Your task to perform on an android device: Open Reddit.com Image 0: 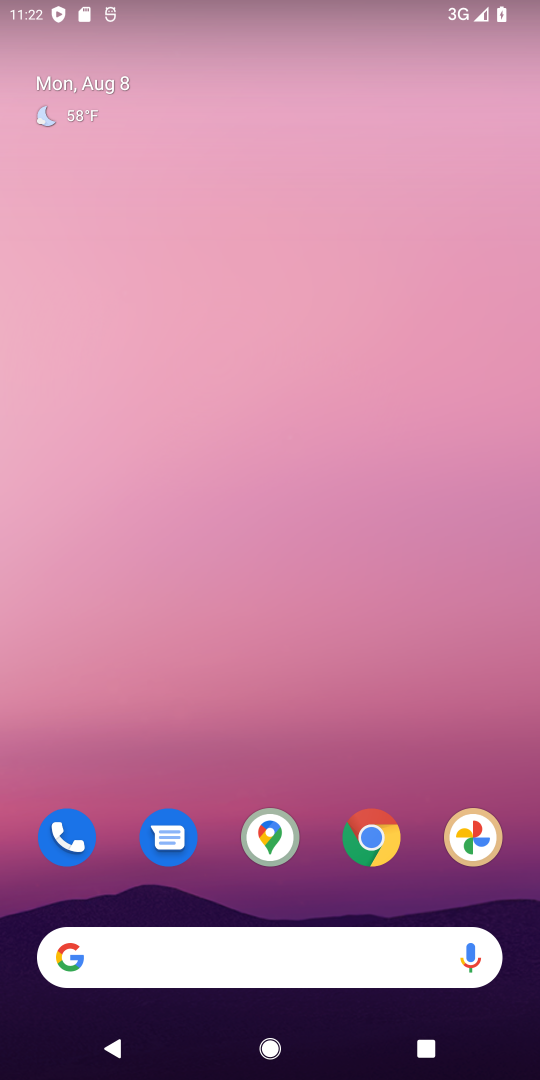
Step 0: click (367, 835)
Your task to perform on an android device: Open Reddit.com Image 1: 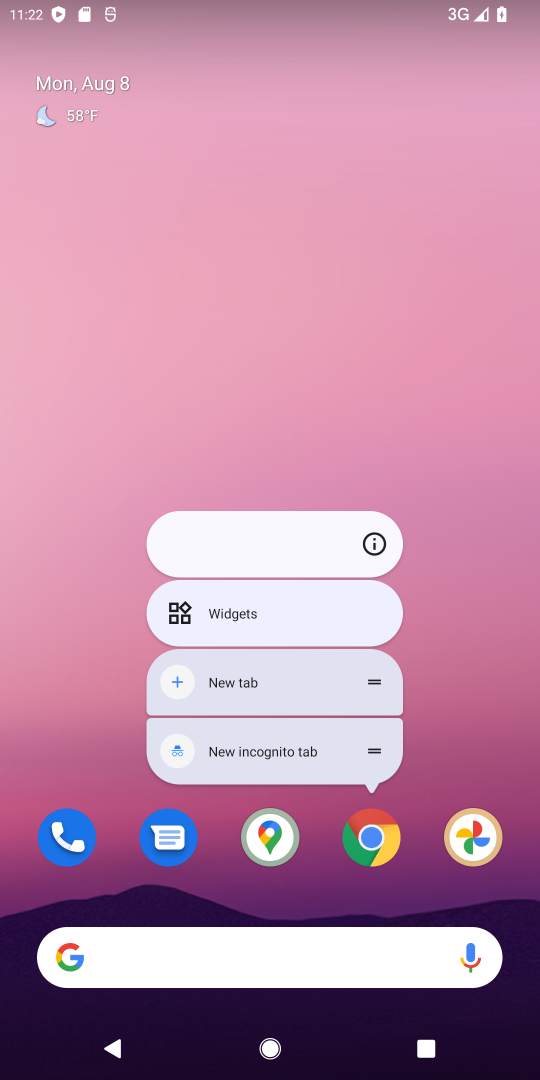
Step 1: click (383, 824)
Your task to perform on an android device: Open Reddit.com Image 2: 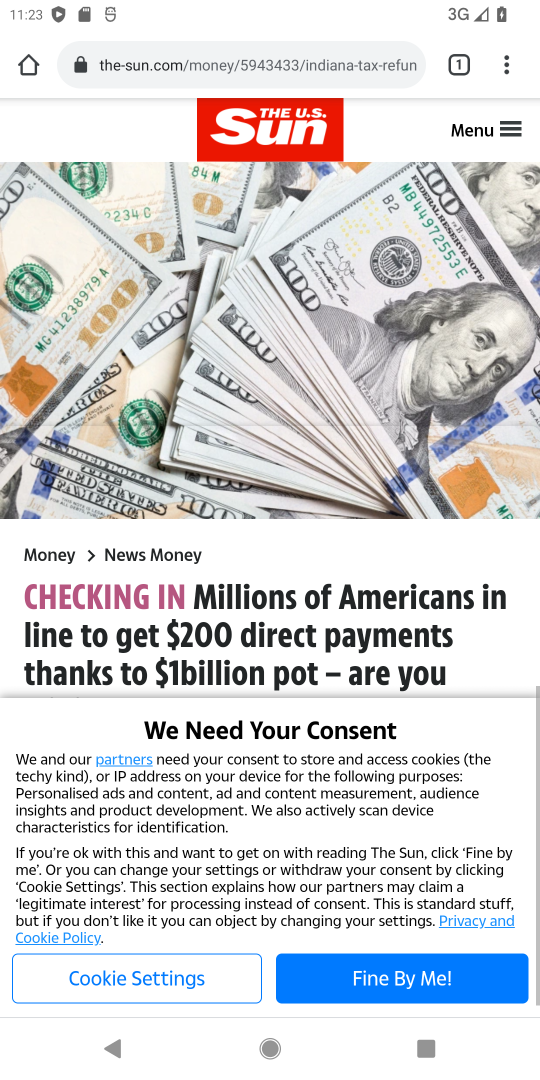
Step 2: click (412, 67)
Your task to perform on an android device: Open Reddit.com Image 3: 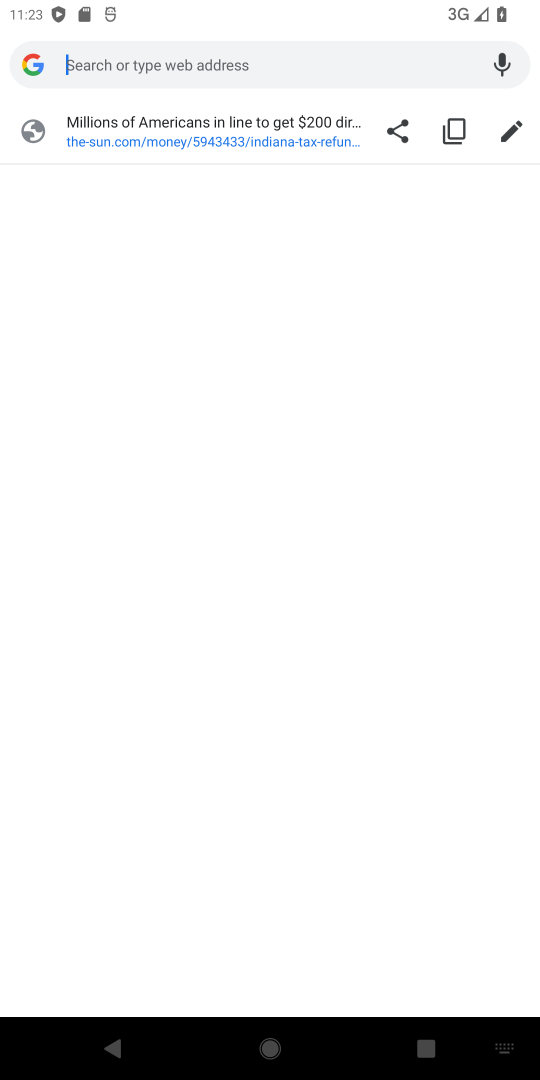
Step 3: type "Reddit.com"
Your task to perform on an android device: Open Reddit.com Image 4: 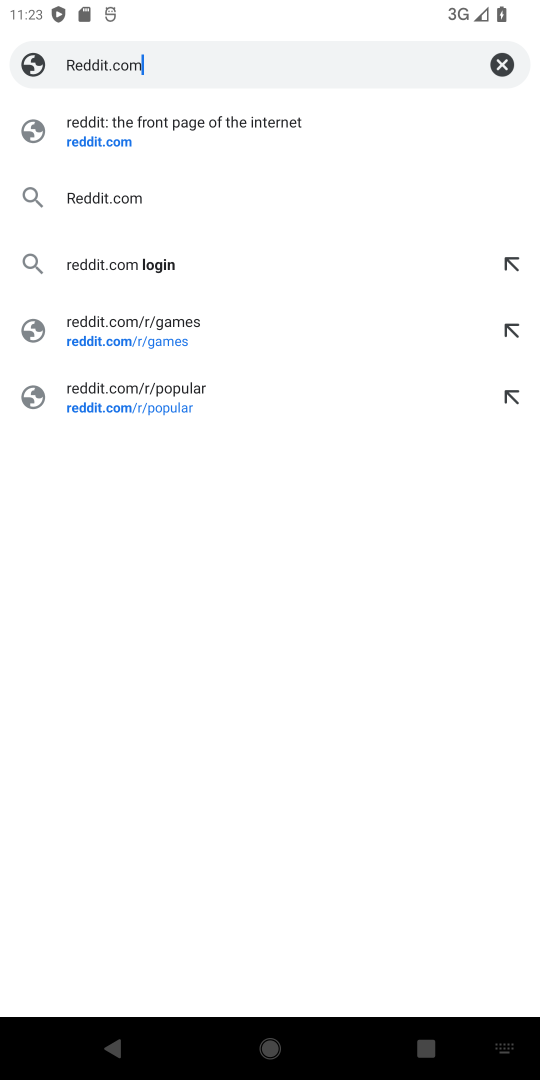
Step 4: click (128, 198)
Your task to perform on an android device: Open Reddit.com Image 5: 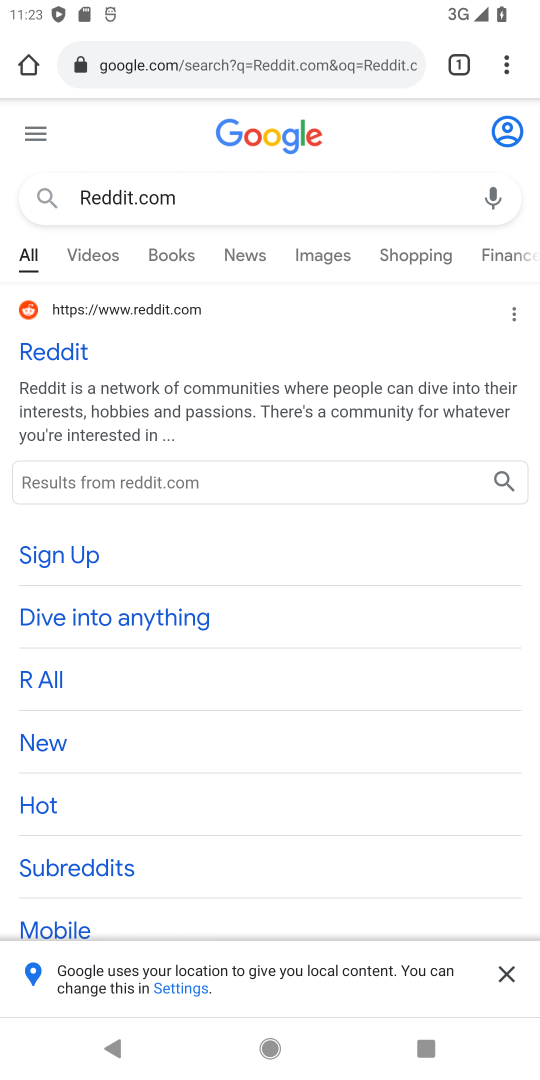
Step 5: task complete